Your task to perform on an android device: install app "Contacts" Image 0: 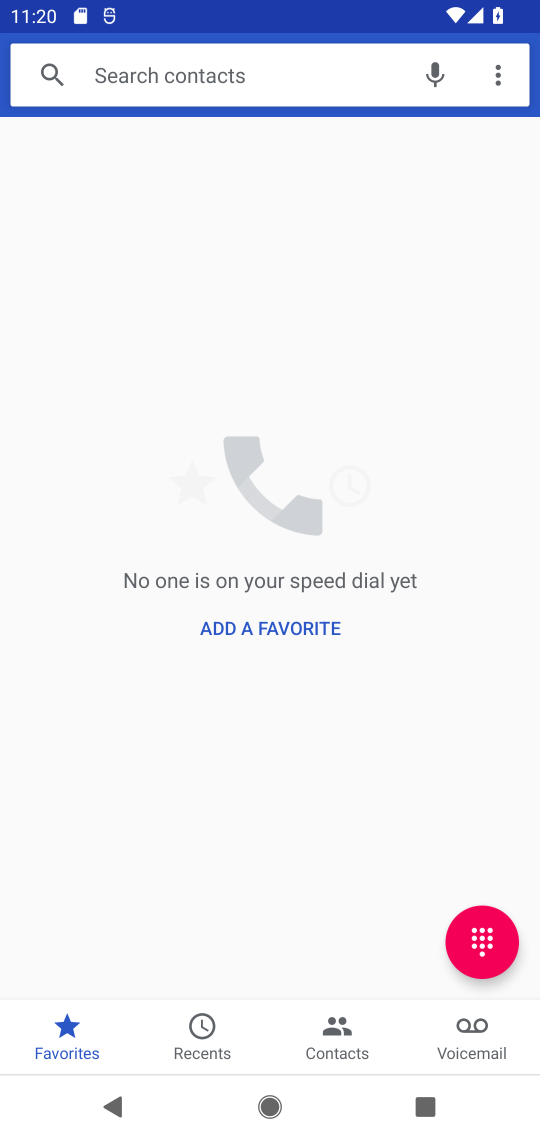
Step 0: press home button
Your task to perform on an android device: install app "Contacts" Image 1: 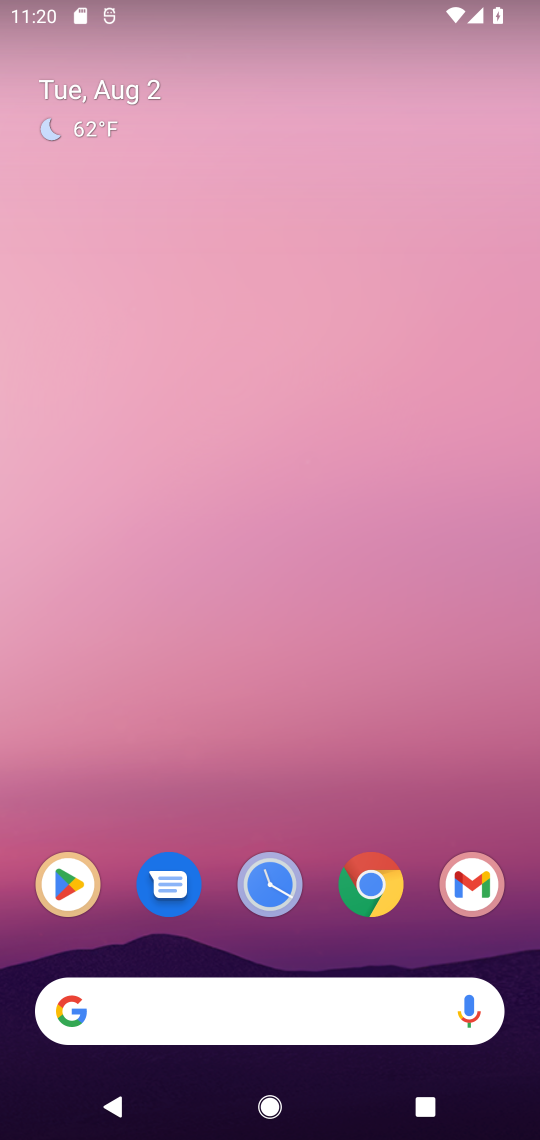
Step 1: click (63, 888)
Your task to perform on an android device: install app "Contacts" Image 2: 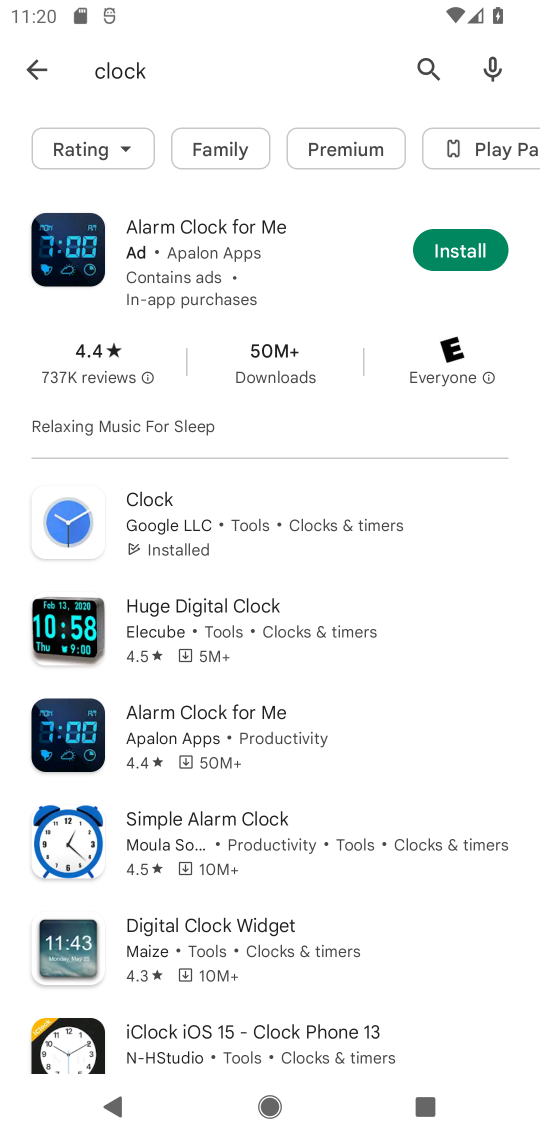
Step 2: click (214, 85)
Your task to perform on an android device: install app "Contacts" Image 3: 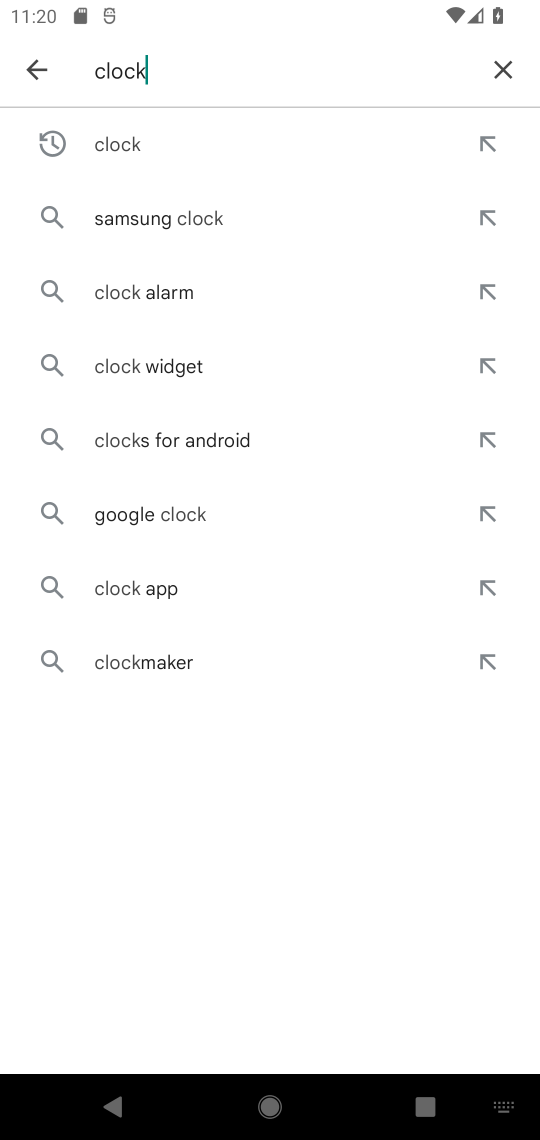
Step 3: click (502, 79)
Your task to perform on an android device: install app "Contacts" Image 4: 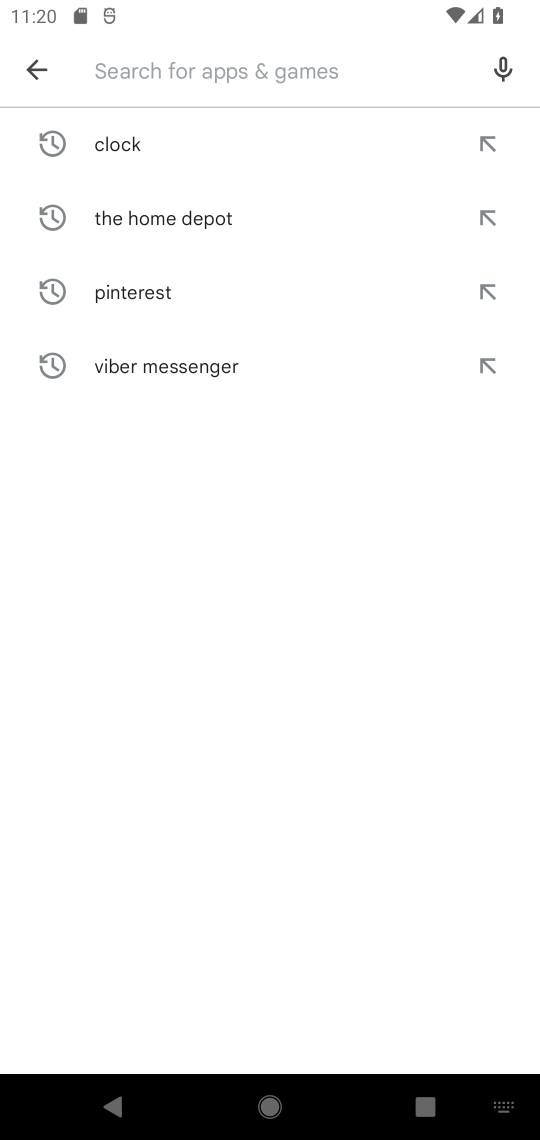
Step 4: type "contacts"
Your task to perform on an android device: install app "Contacts" Image 5: 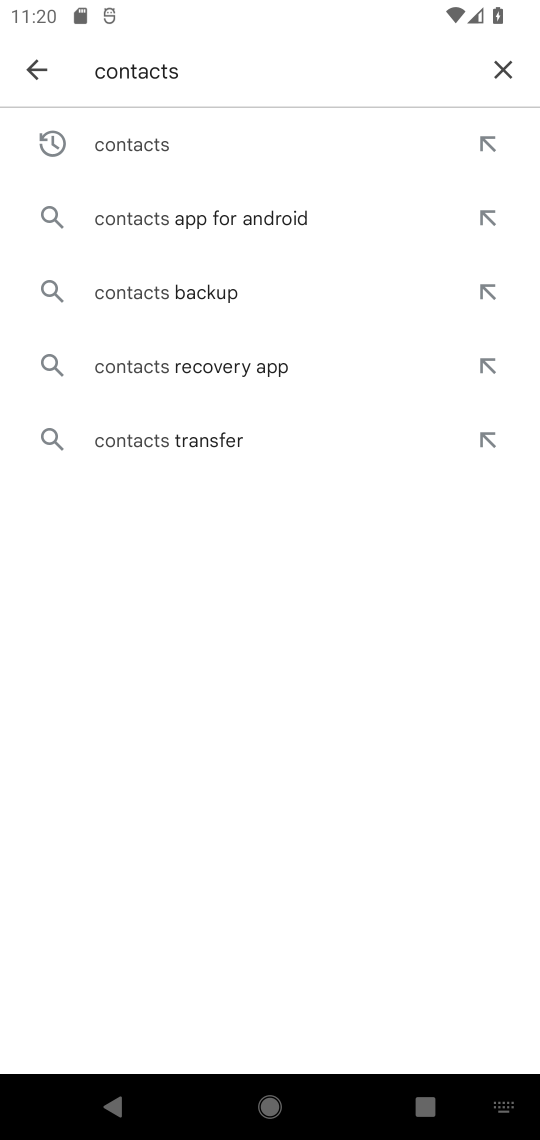
Step 5: click (157, 135)
Your task to perform on an android device: install app "Contacts" Image 6: 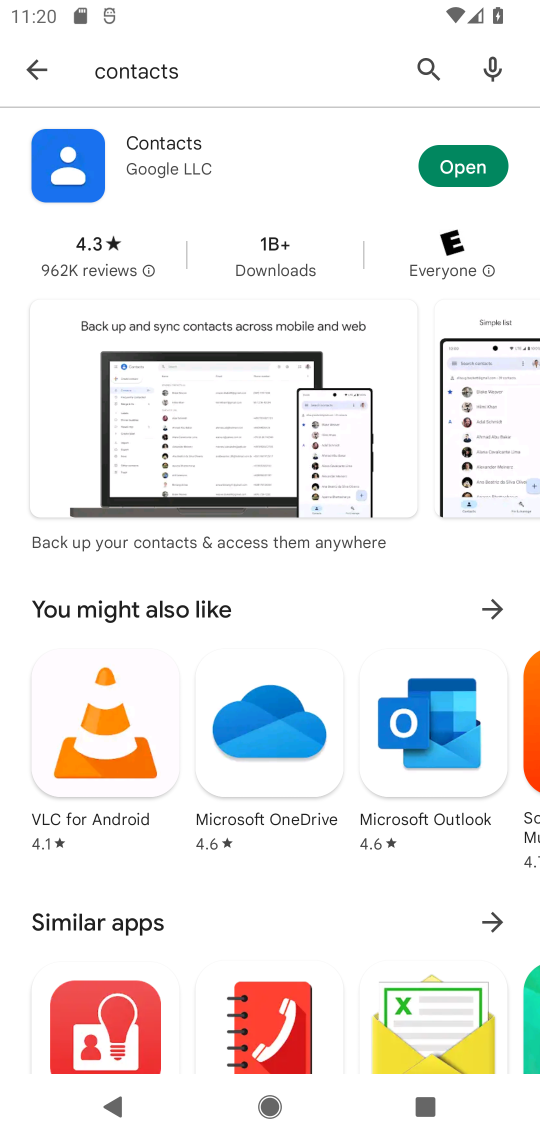
Step 6: click (96, 152)
Your task to perform on an android device: install app "Contacts" Image 7: 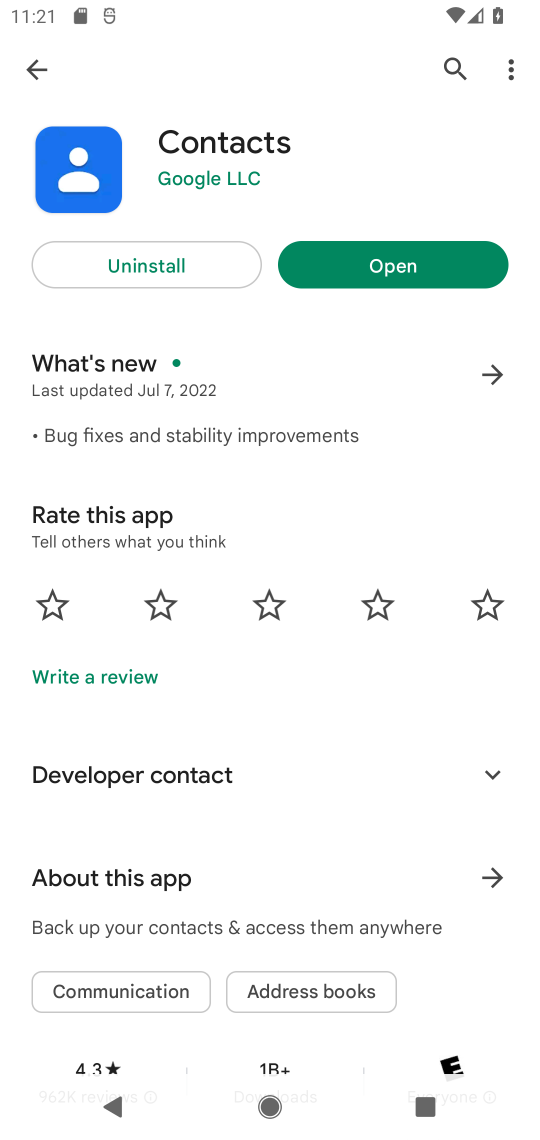
Step 7: task complete